Your task to perform on an android device: install app "Facebook Lite" Image 0: 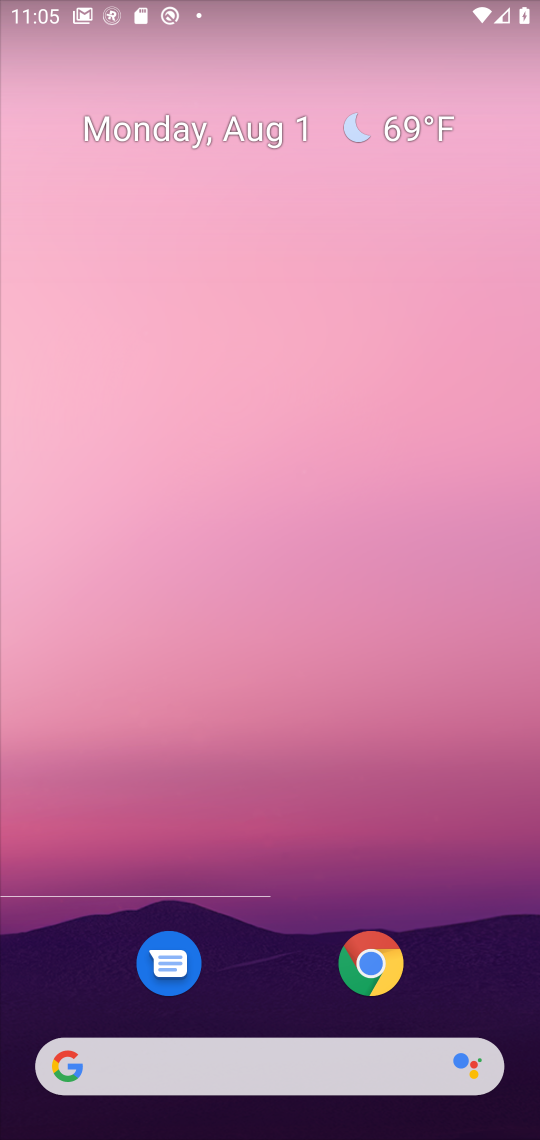
Step 0: press home button
Your task to perform on an android device: install app "Facebook Lite" Image 1: 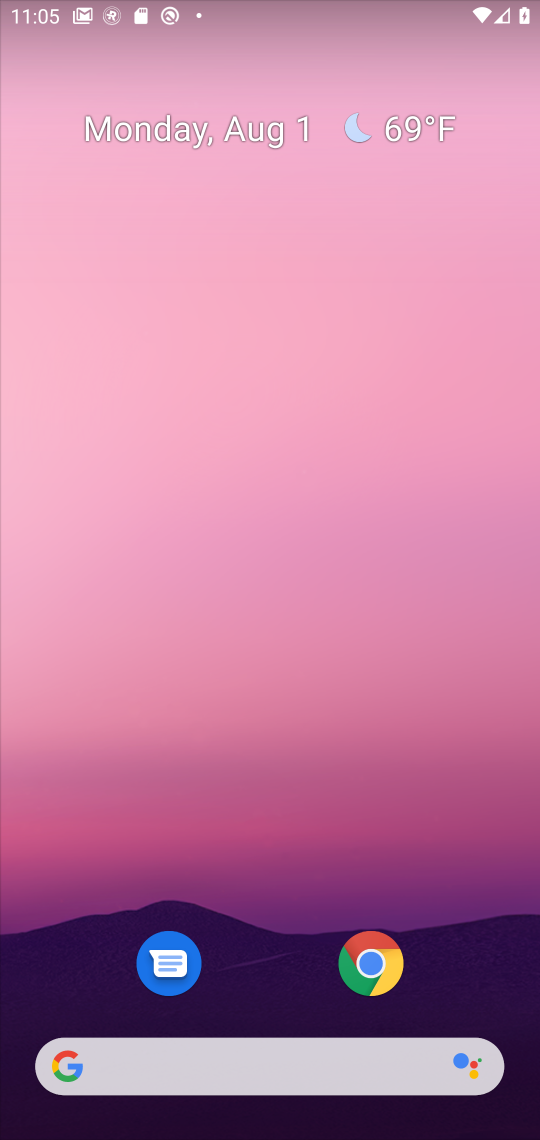
Step 1: drag from (256, 892) to (328, 0)
Your task to perform on an android device: install app "Facebook Lite" Image 2: 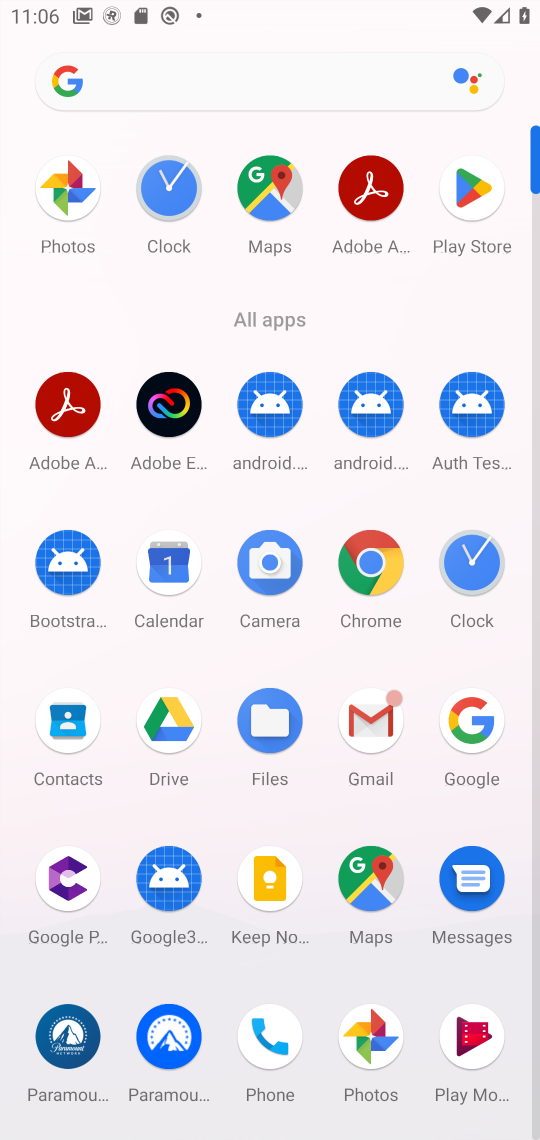
Step 2: click (480, 210)
Your task to perform on an android device: install app "Facebook Lite" Image 3: 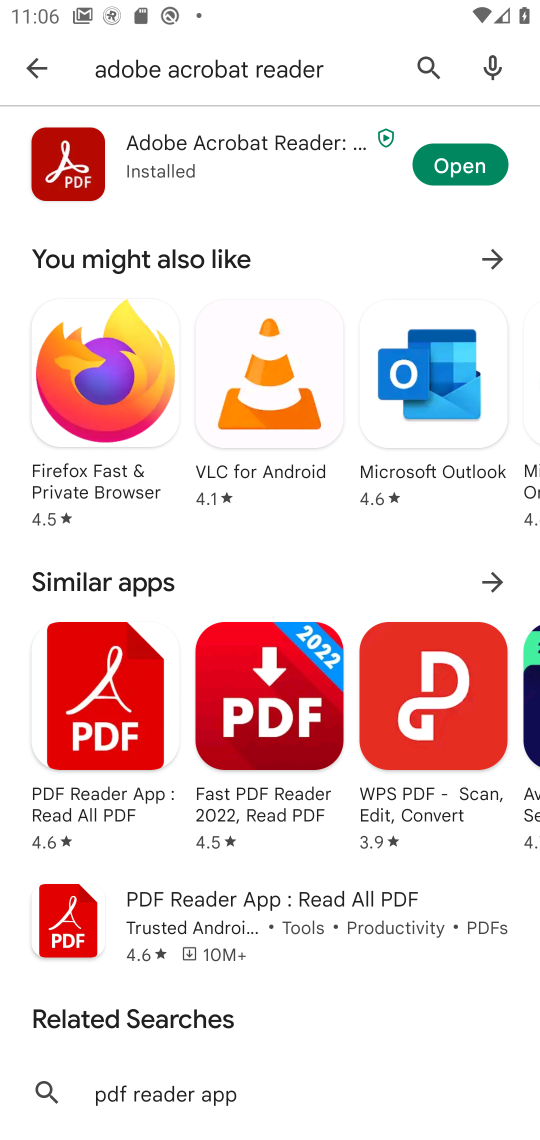
Step 3: click (218, 47)
Your task to perform on an android device: install app "Facebook Lite" Image 4: 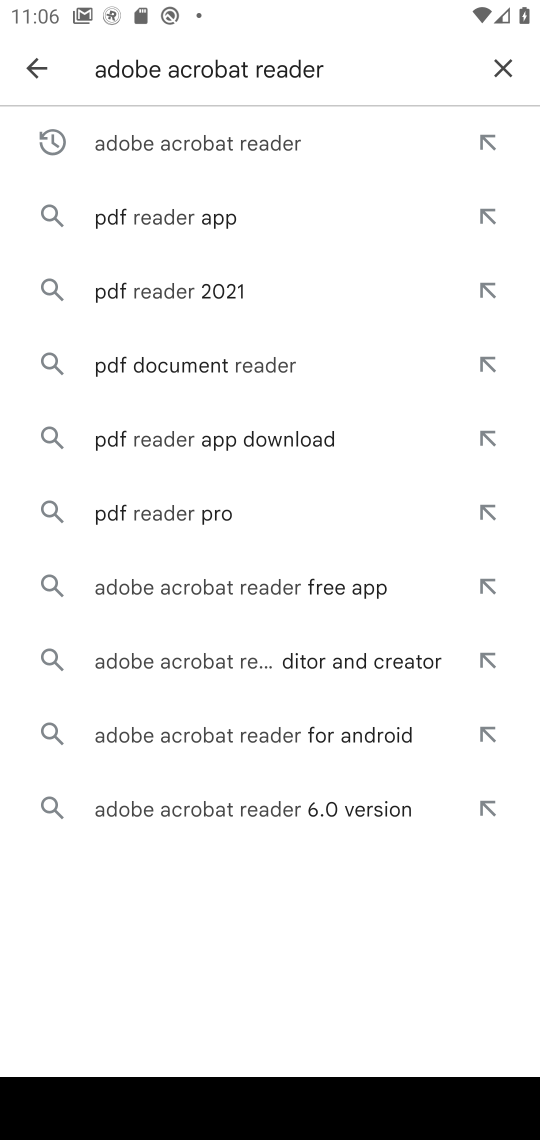
Step 4: click (487, 61)
Your task to perform on an android device: install app "Facebook Lite" Image 5: 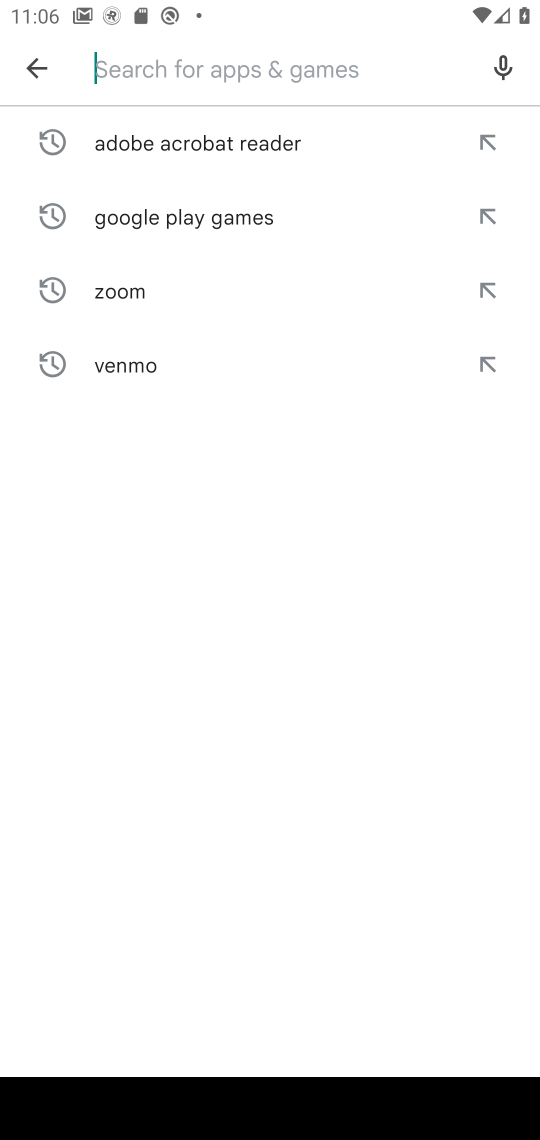
Step 5: type "Facebook Lite"
Your task to perform on an android device: install app "Facebook Lite" Image 6: 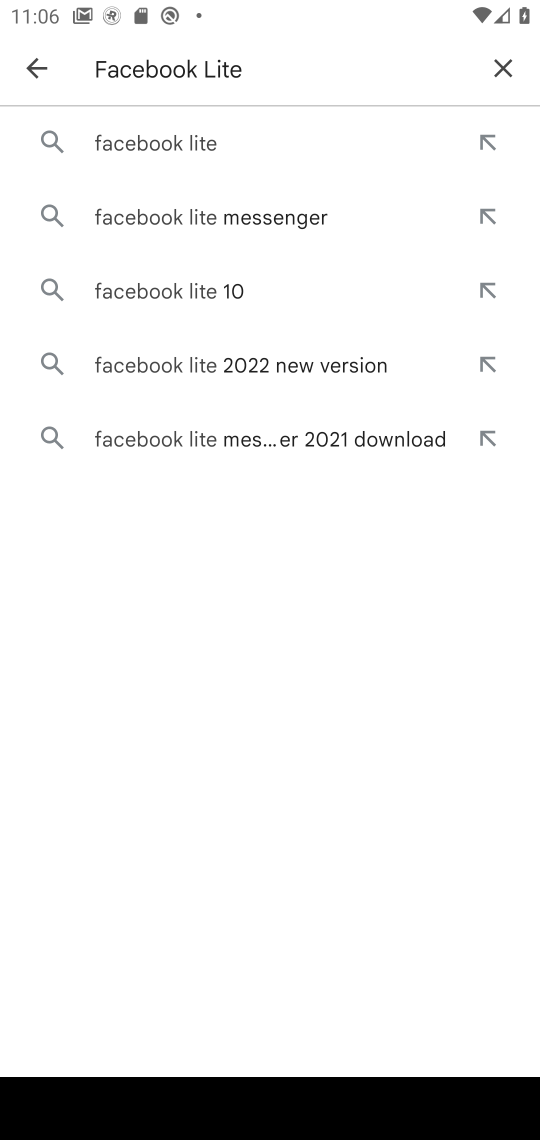
Step 6: click (206, 145)
Your task to perform on an android device: install app "Facebook Lite" Image 7: 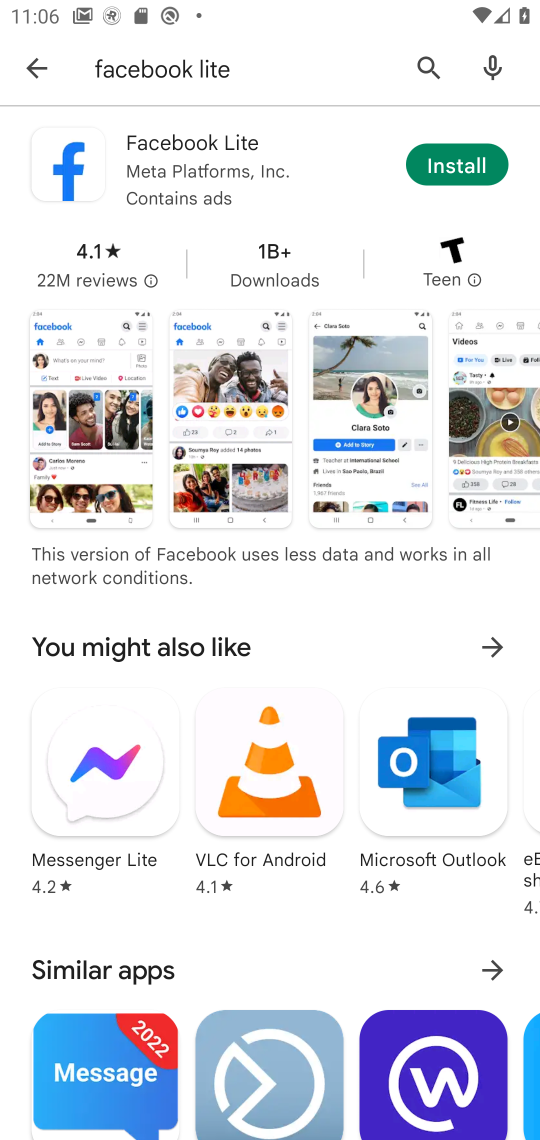
Step 7: click (442, 151)
Your task to perform on an android device: install app "Facebook Lite" Image 8: 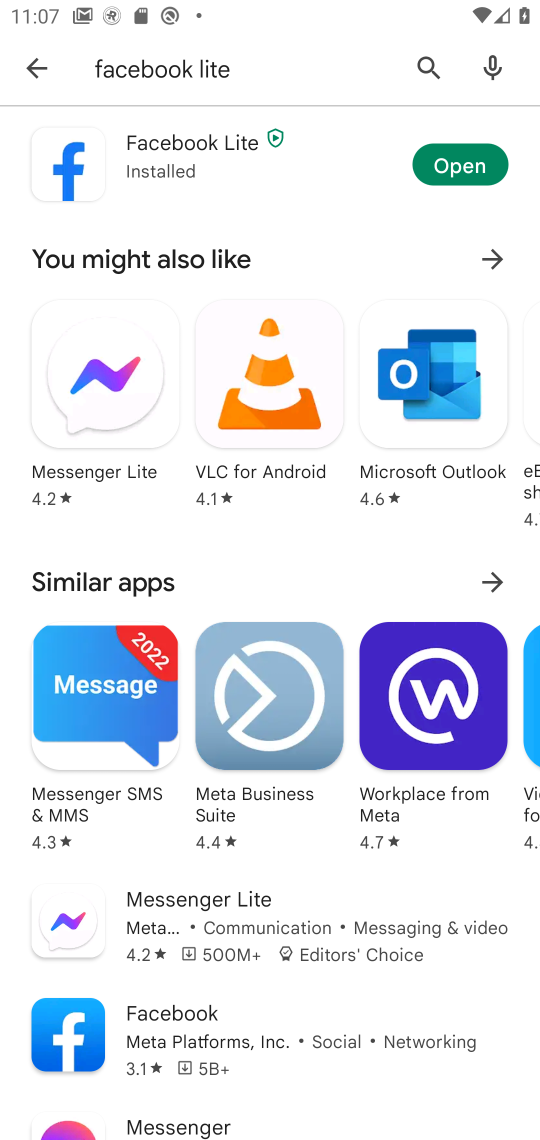
Step 8: task complete